Your task to perform on an android device: move an email to a new category in the gmail app Image 0: 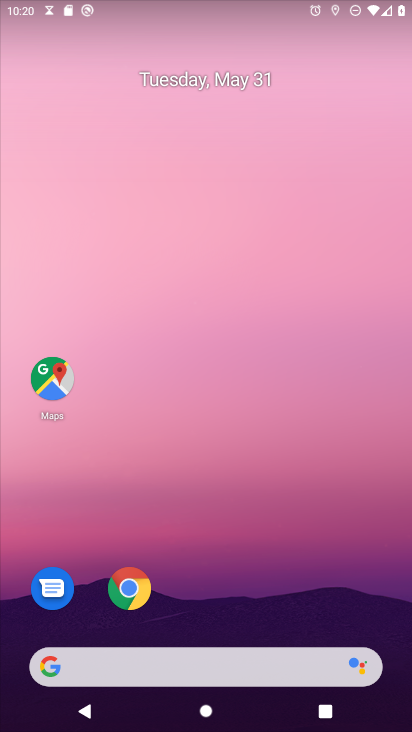
Step 0: drag from (294, 588) to (211, 197)
Your task to perform on an android device: move an email to a new category in the gmail app Image 1: 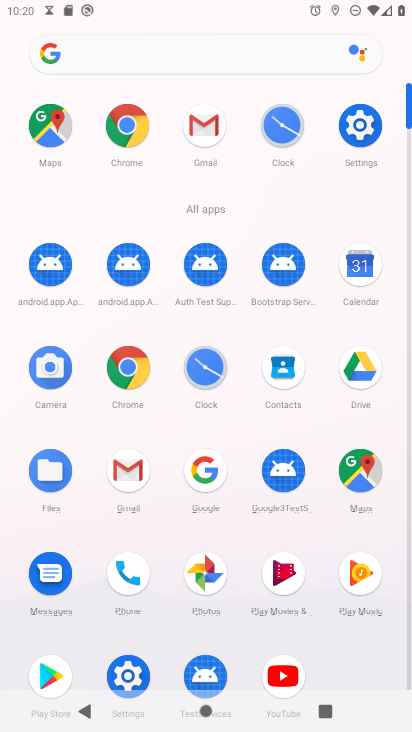
Step 1: click (203, 125)
Your task to perform on an android device: move an email to a new category in the gmail app Image 2: 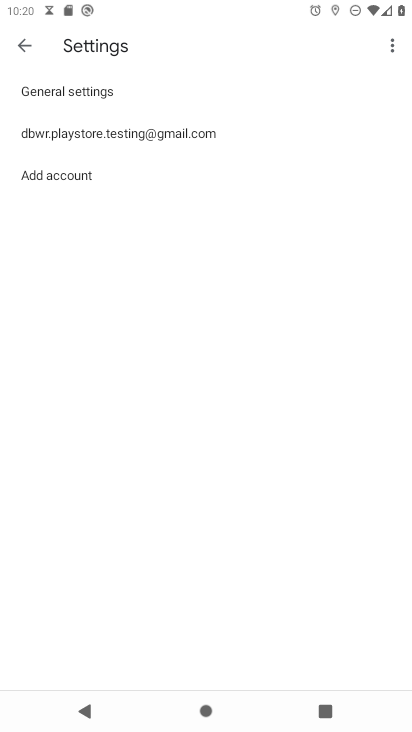
Step 2: click (20, 45)
Your task to perform on an android device: move an email to a new category in the gmail app Image 3: 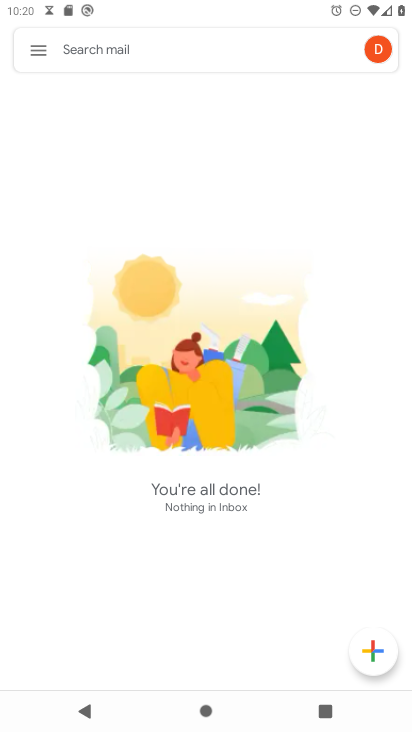
Step 3: click (36, 44)
Your task to perform on an android device: move an email to a new category in the gmail app Image 4: 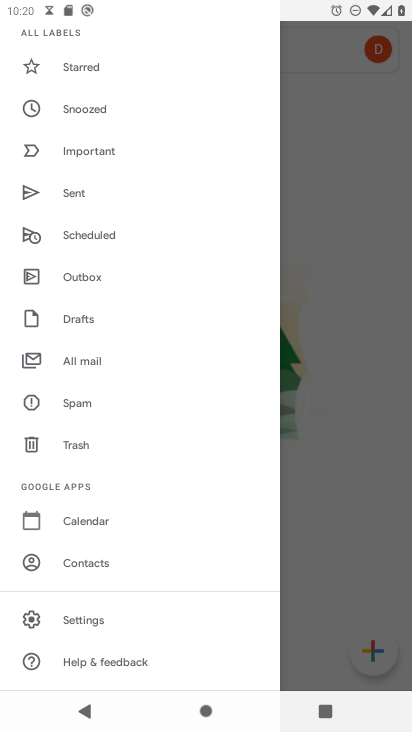
Step 4: click (83, 356)
Your task to perform on an android device: move an email to a new category in the gmail app Image 5: 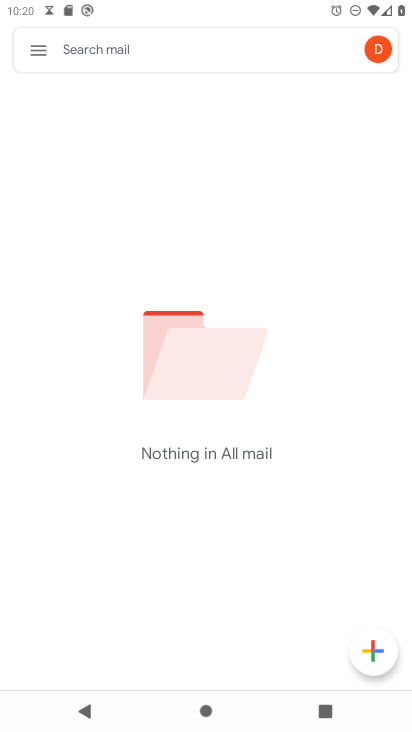
Step 5: click (41, 53)
Your task to perform on an android device: move an email to a new category in the gmail app Image 6: 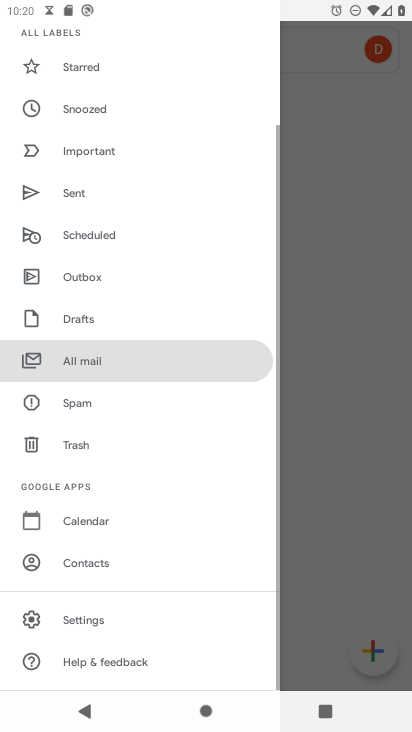
Step 6: drag from (126, 161) to (110, 392)
Your task to perform on an android device: move an email to a new category in the gmail app Image 7: 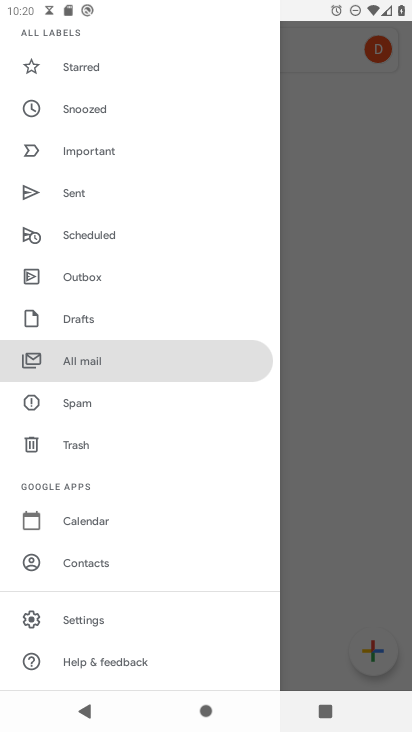
Step 7: drag from (107, 248) to (147, 417)
Your task to perform on an android device: move an email to a new category in the gmail app Image 8: 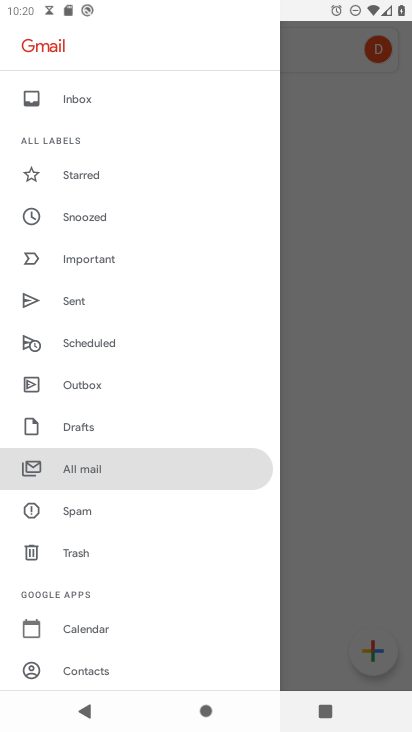
Step 8: click (86, 170)
Your task to perform on an android device: move an email to a new category in the gmail app Image 9: 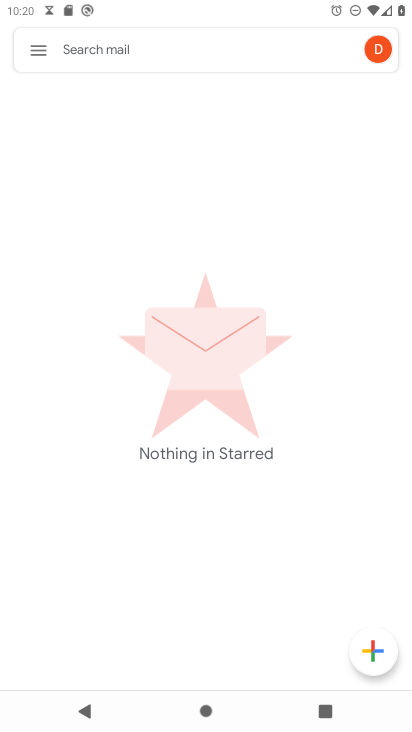
Step 9: click (42, 59)
Your task to perform on an android device: move an email to a new category in the gmail app Image 10: 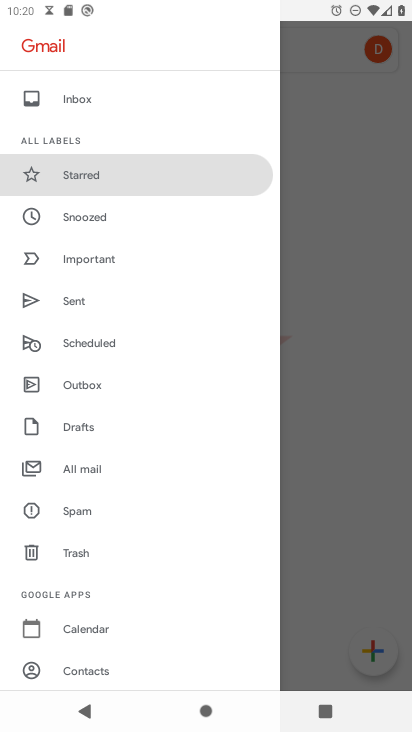
Step 10: click (86, 224)
Your task to perform on an android device: move an email to a new category in the gmail app Image 11: 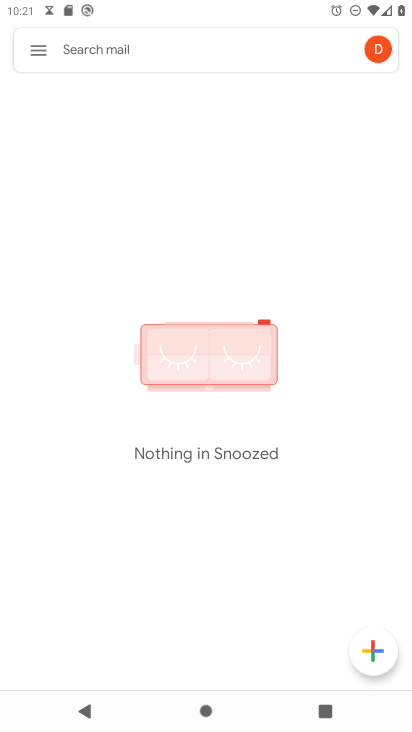
Step 11: click (45, 48)
Your task to perform on an android device: move an email to a new category in the gmail app Image 12: 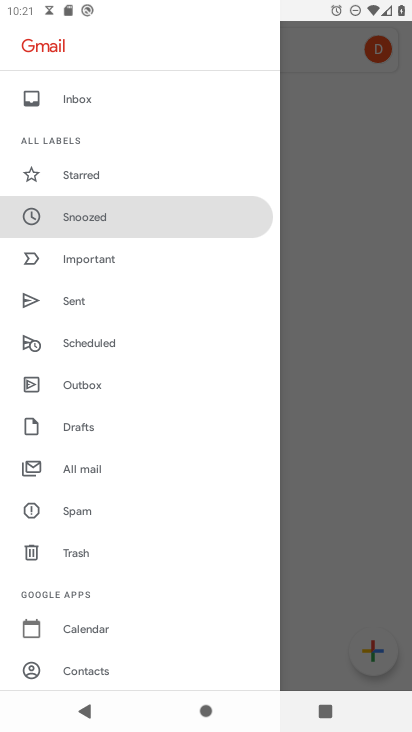
Step 12: click (108, 258)
Your task to perform on an android device: move an email to a new category in the gmail app Image 13: 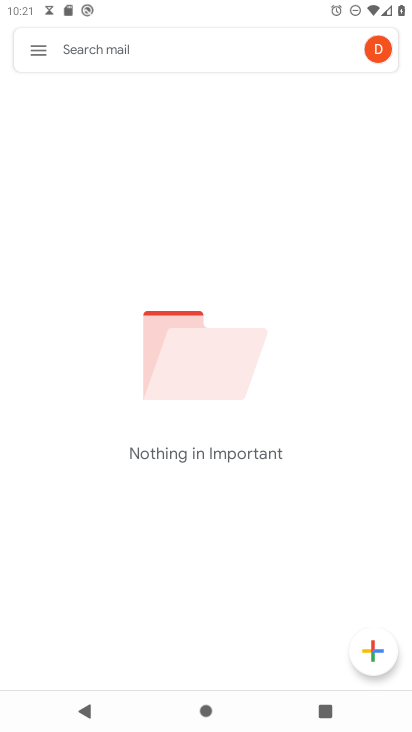
Step 13: task complete